Your task to perform on an android device: turn off picture-in-picture Image 0: 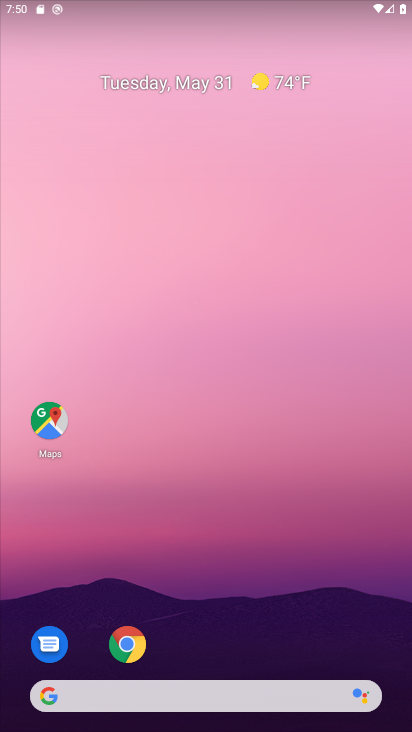
Step 0: press home button
Your task to perform on an android device: turn off picture-in-picture Image 1: 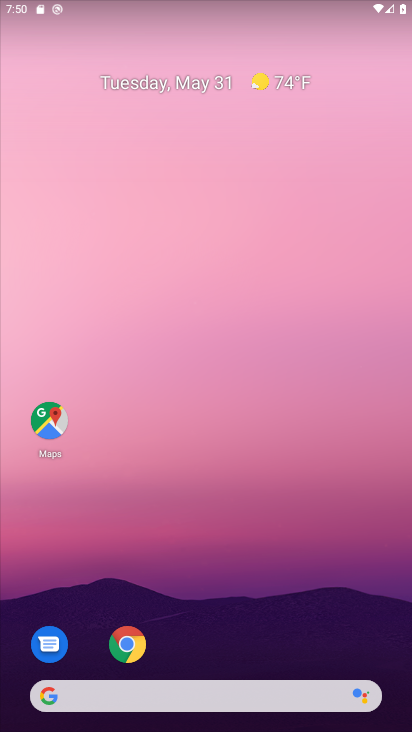
Step 1: click (124, 647)
Your task to perform on an android device: turn off picture-in-picture Image 2: 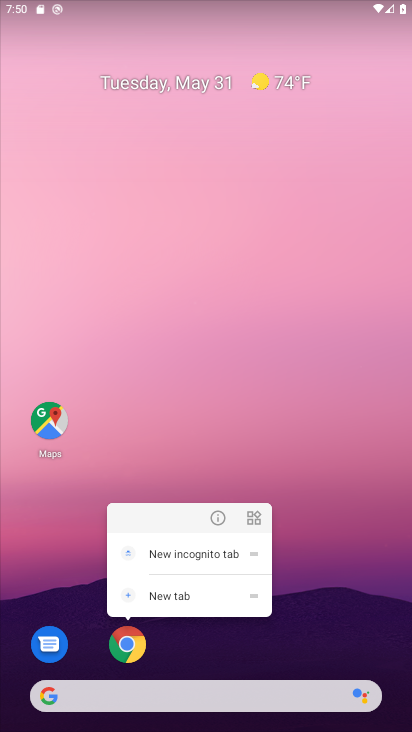
Step 2: click (212, 515)
Your task to perform on an android device: turn off picture-in-picture Image 3: 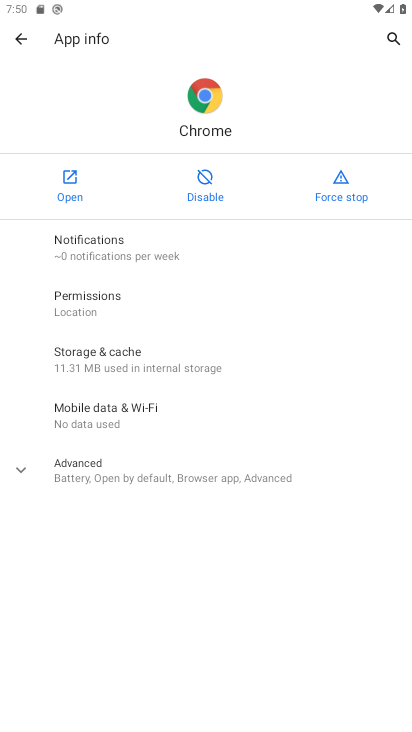
Step 3: click (74, 469)
Your task to perform on an android device: turn off picture-in-picture Image 4: 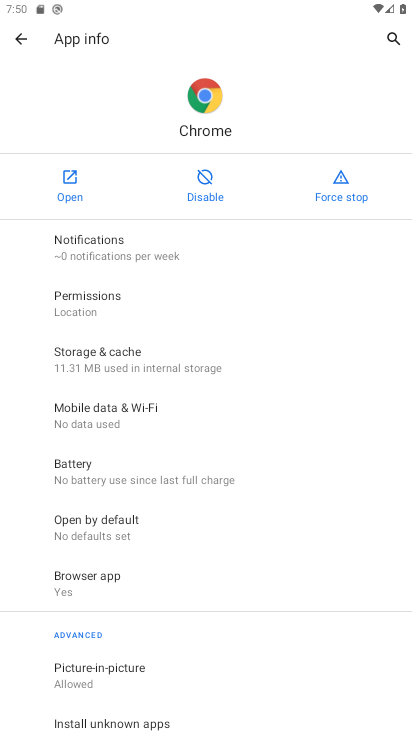
Step 4: click (144, 672)
Your task to perform on an android device: turn off picture-in-picture Image 5: 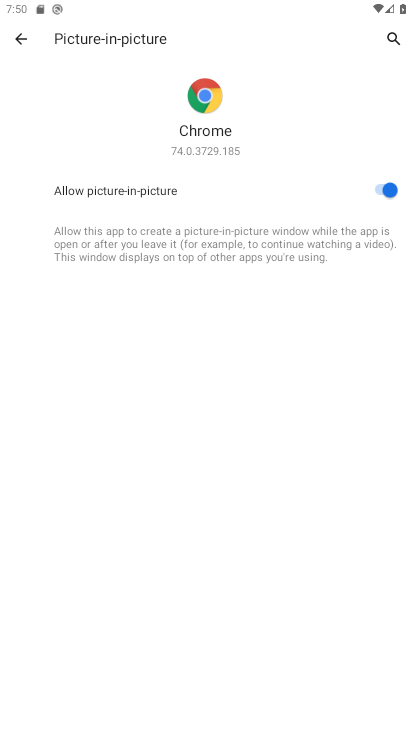
Step 5: click (379, 187)
Your task to perform on an android device: turn off picture-in-picture Image 6: 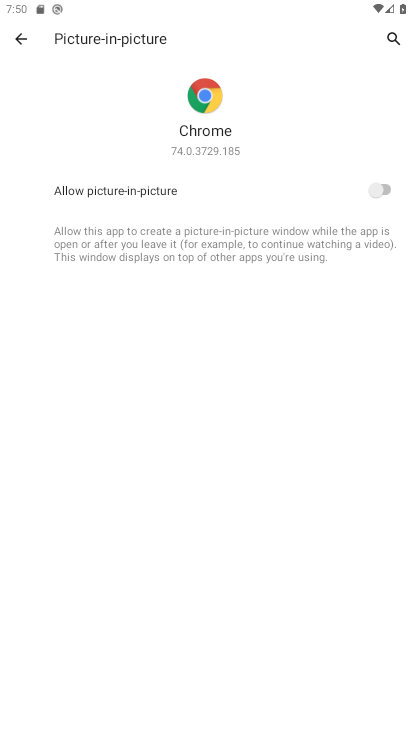
Step 6: task complete